Your task to perform on an android device: toggle show notifications on the lock screen Image 0: 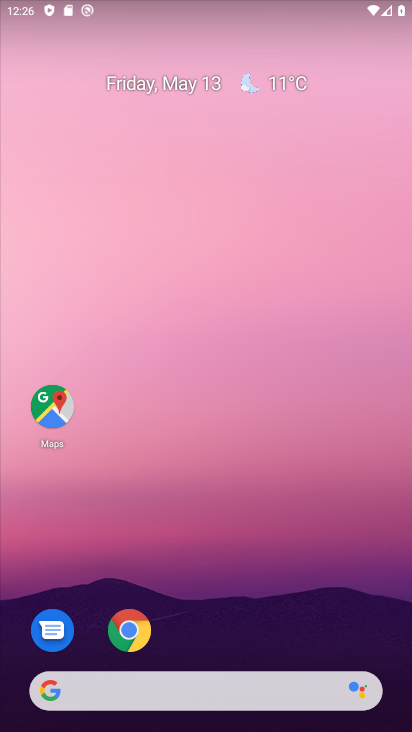
Step 0: drag from (231, 624) to (259, 12)
Your task to perform on an android device: toggle show notifications on the lock screen Image 1: 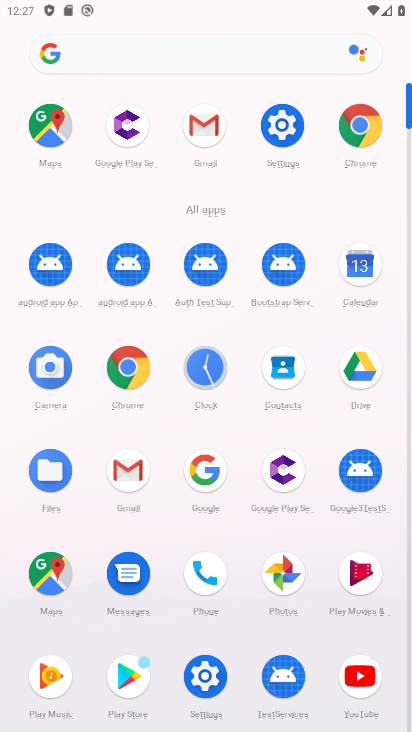
Step 1: click (298, 143)
Your task to perform on an android device: toggle show notifications on the lock screen Image 2: 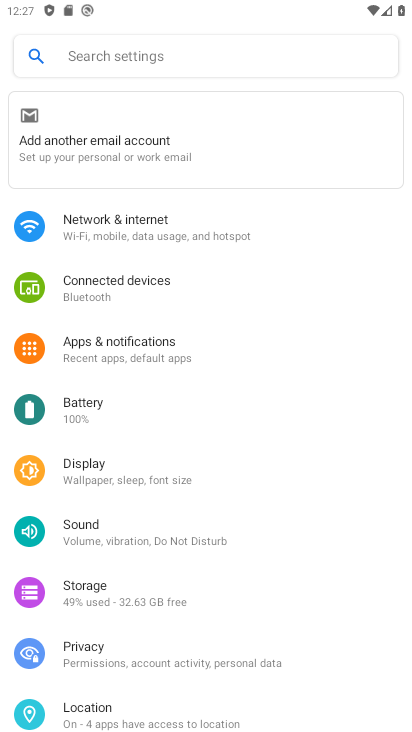
Step 2: click (149, 360)
Your task to perform on an android device: toggle show notifications on the lock screen Image 3: 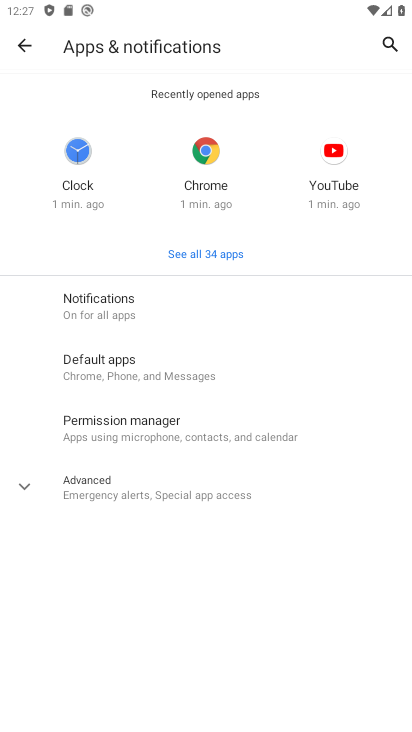
Step 3: click (85, 308)
Your task to perform on an android device: toggle show notifications on the lock screen Image 4: 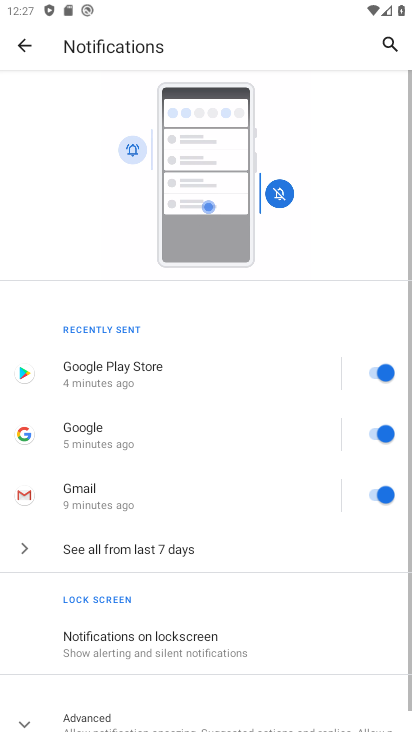
Step 4: drag from (169, 612) to (139, 261)
Your task to perform on an android device: toggle show notifications on the lock screen Image 5: 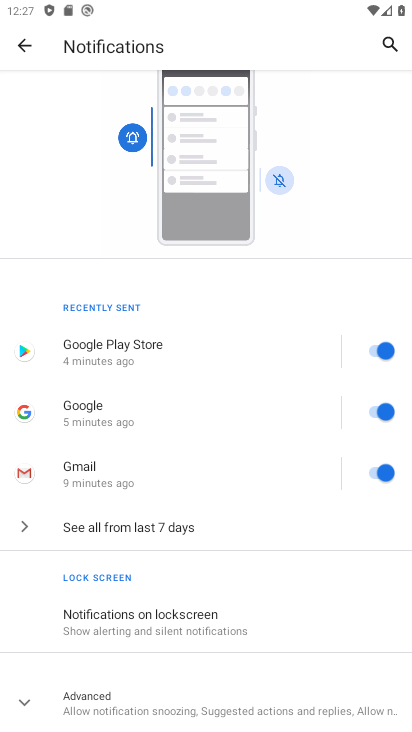
Step 5: click (136, 626)
Your task to perform on an android device: toggle show notifications on the lock screen Image 6: 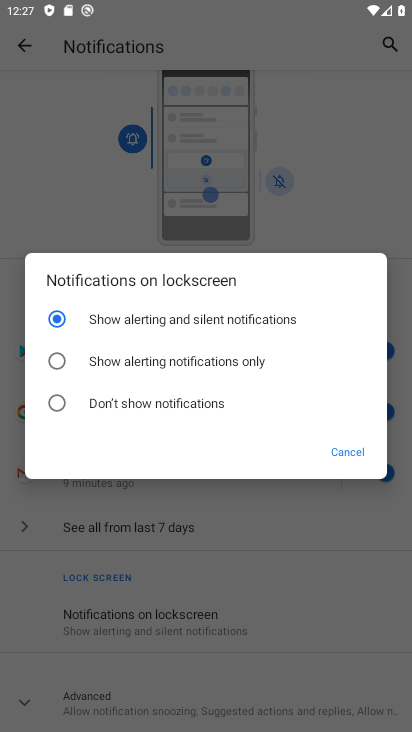
Step 6: click (47, 405)
Your task to perform on an android device: toggle show notifications on the lock screen Image 7: 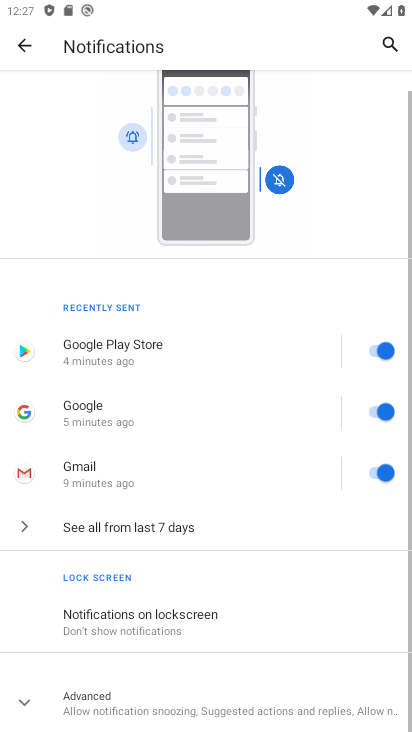
Step 7: task complete